Your task to perform on an android device: Open the calendar and show me this week's events? Image 0: 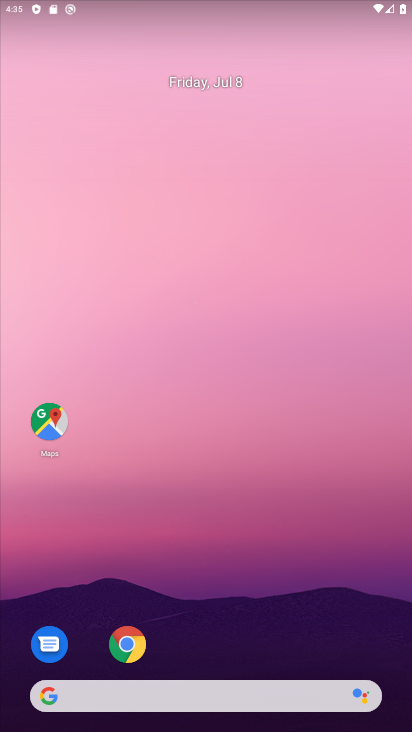
Step 0: drag from (320, 630) to (258, 156)
Your task to perform on an android device: Open the calendar and show me this week's events? Image 1: 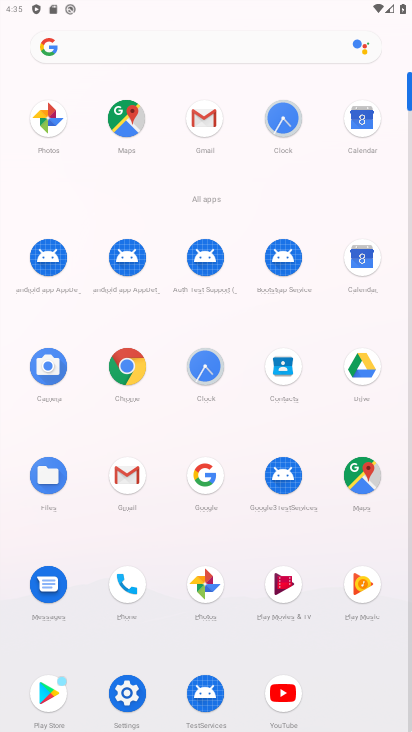
Step 1: click (360, 122)
Your task to perform on an android device: Open the calendar and show me this week's events? Image 2: 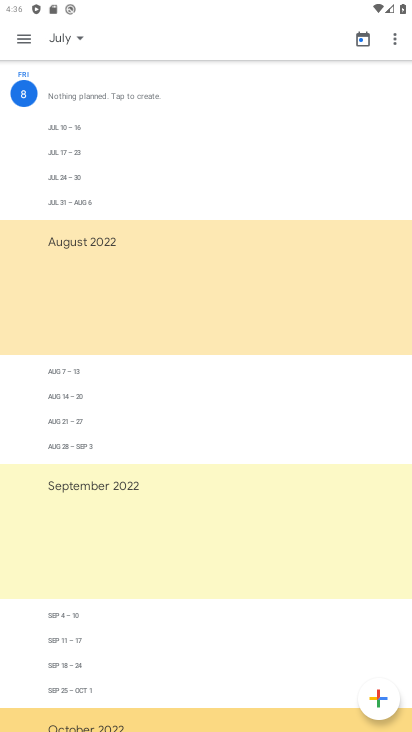
Step 2: click (25, 37)
Your task to perform on an android device: Open the calendar and show me this week's events? Image 3: 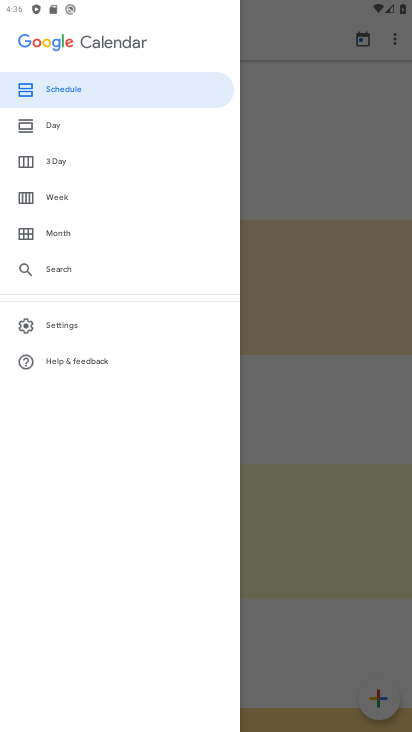
Step 3: click (55, 198)
Your task to perform on an android device: Open the calendar and show me this week's events? Image 4: 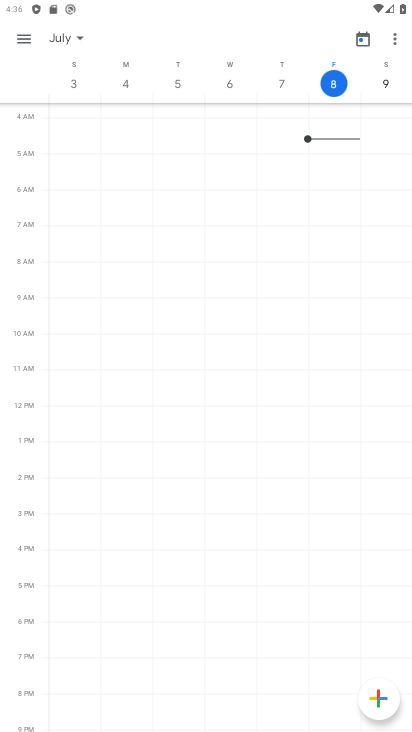
Step 4: task complete